Your task to perform on an android device: What's a good restaurant in New York? Image 0: 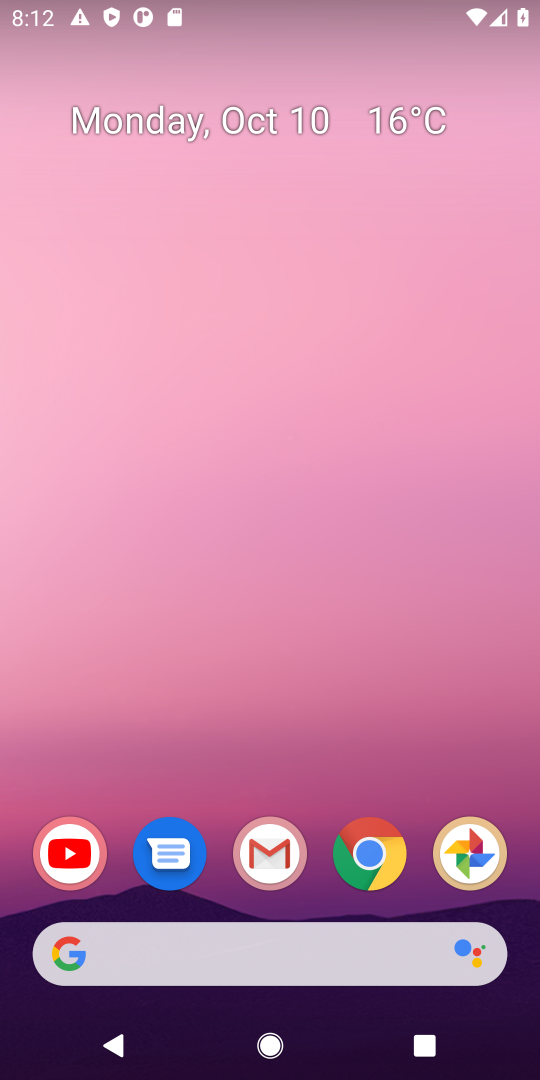
Step 0: drag from (300, 827) to (280, 24)
Your task to perform on an android device: What's a good restaurant in New York? Image 1: 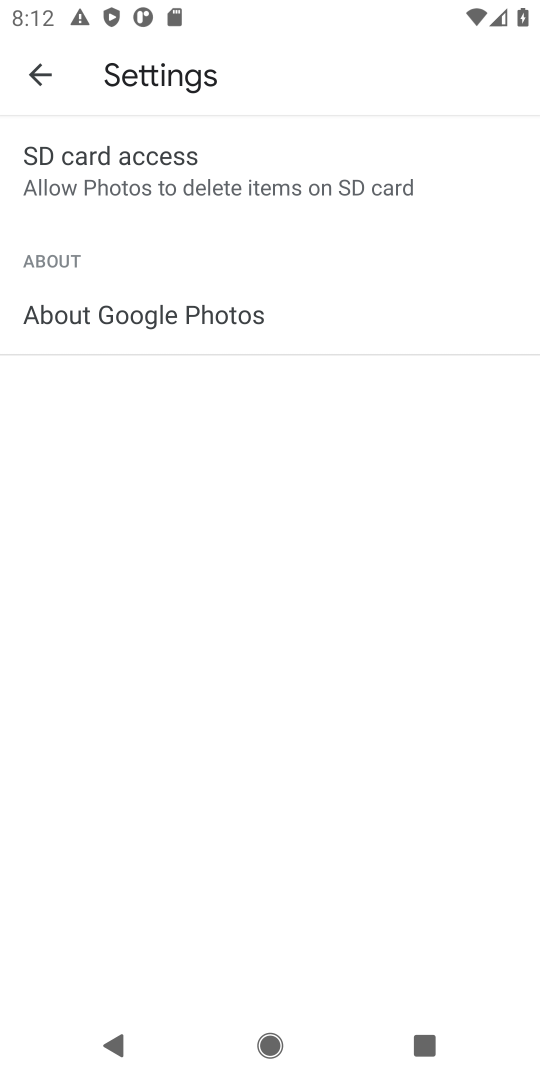
Step 1: press home button
Your task to perform on an android device: What's a good restaurant in New York? Image 2: 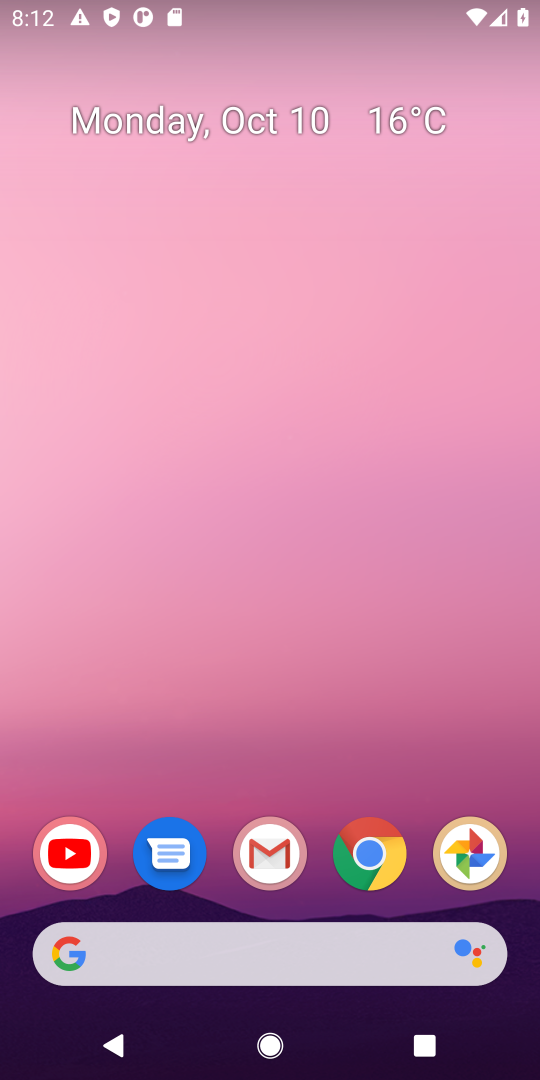
Step 2: drag from (294, 912) to (265, 162)
Your task to perform on an android device: What's a good restaurant in New York? Image 3: 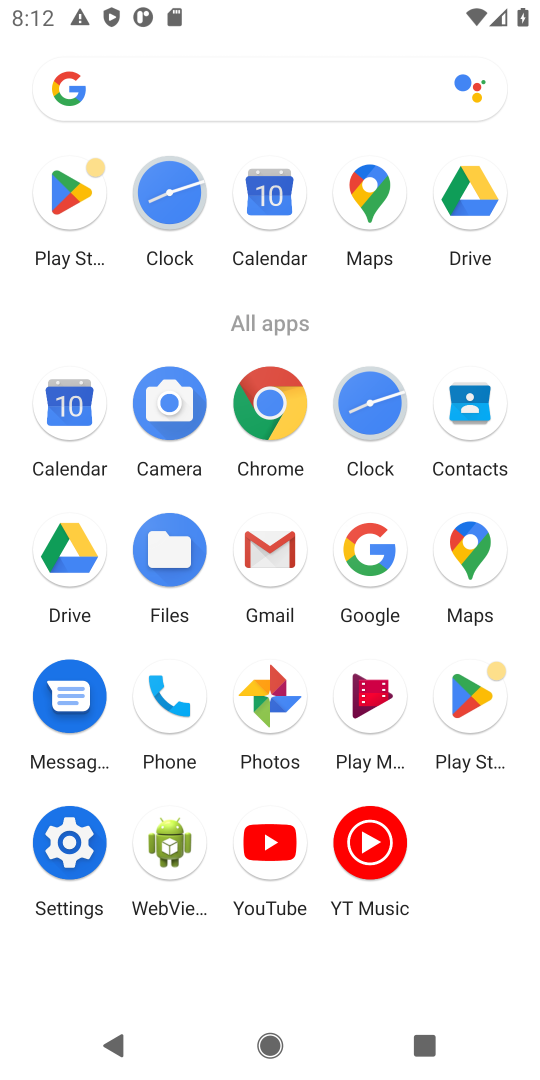
Step 3: click (372, 558)
Your task to perform on an android device: What's a good restaurant in New York? Image 4: 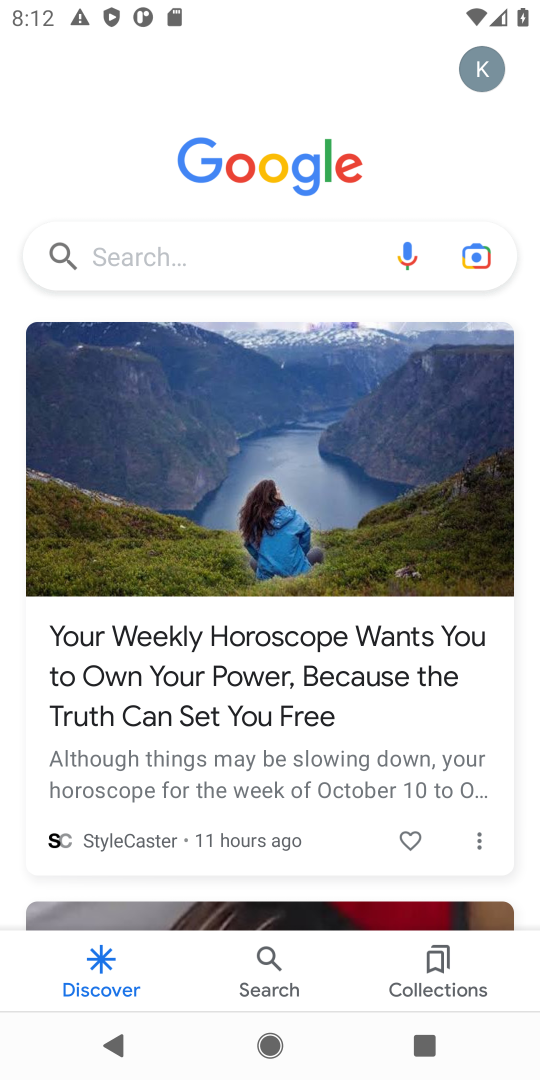
Step 4: click (347, 253)
Your task to perform on an android device: What's a good restaurant in New York? Image 5: 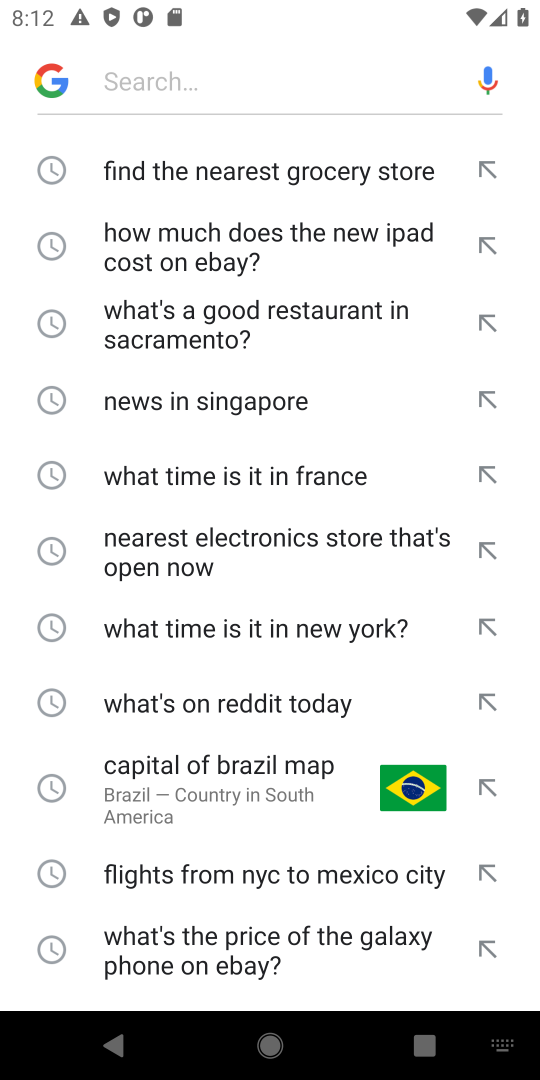
Step 5: type "What's a good restaurant in New York?"
Your task to perform on an android device: What's a good restaurant in New York? Image 6: 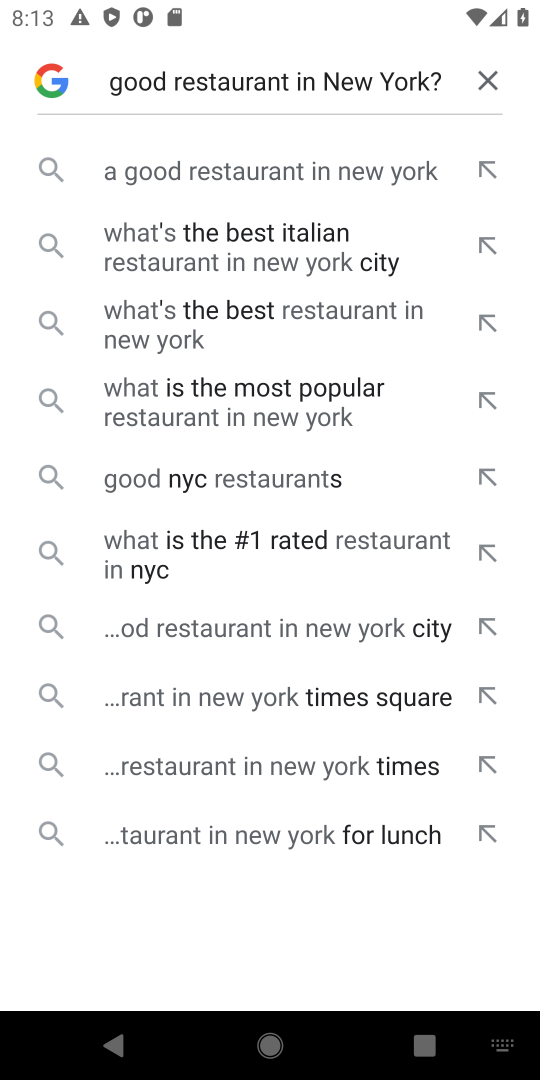
Step 6: type ""
Your task to perform on an android device: What's a good restaurant in New York? Image 7: 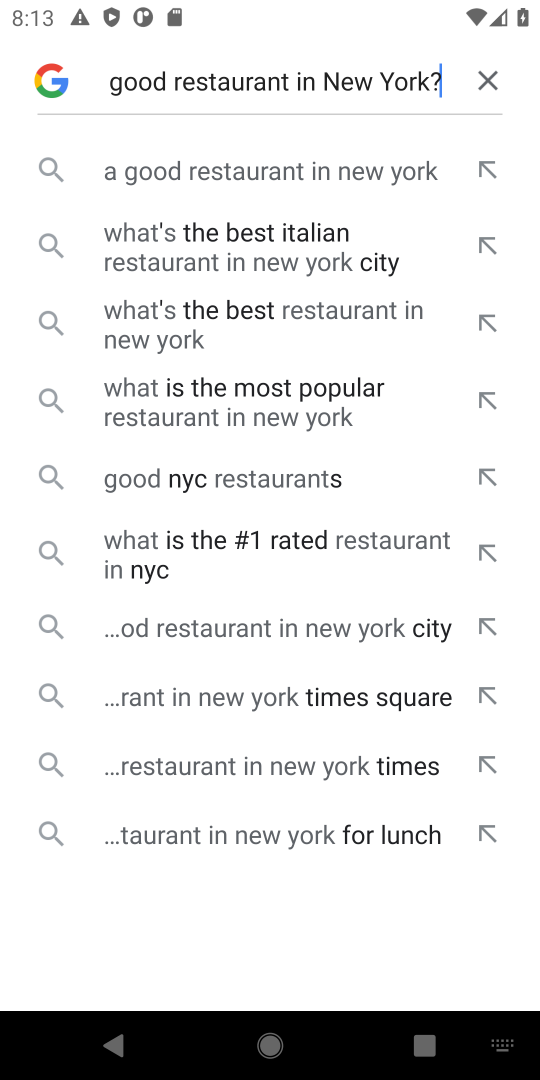
Step 7: click (253, 176)
Your task to perform on an android device: What's a good restaurant in New York? Image 8: 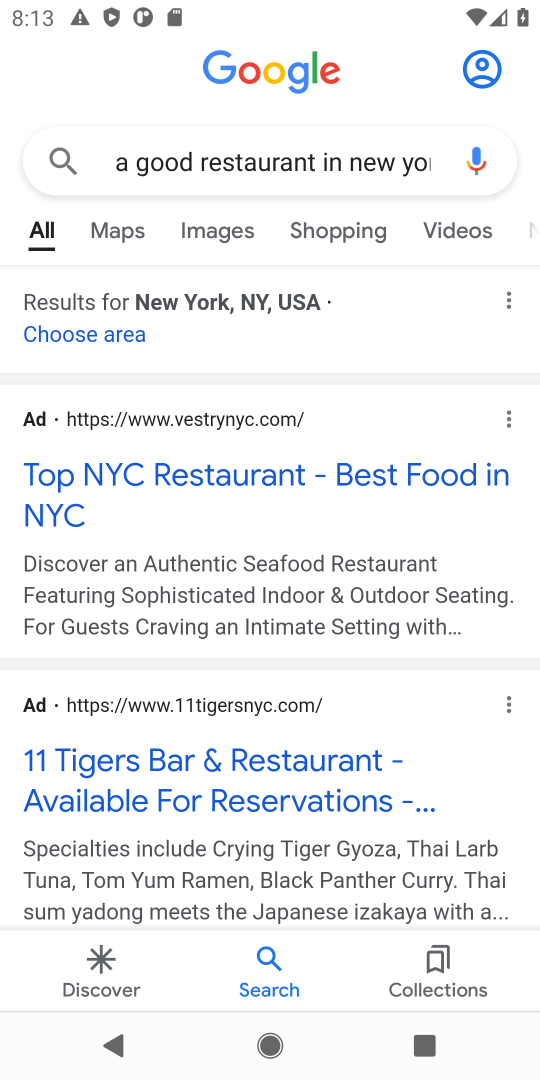
Step 8: task complete